Your task to perform on an android device: open app "LiveIn - Share Your Moment" Image 0: 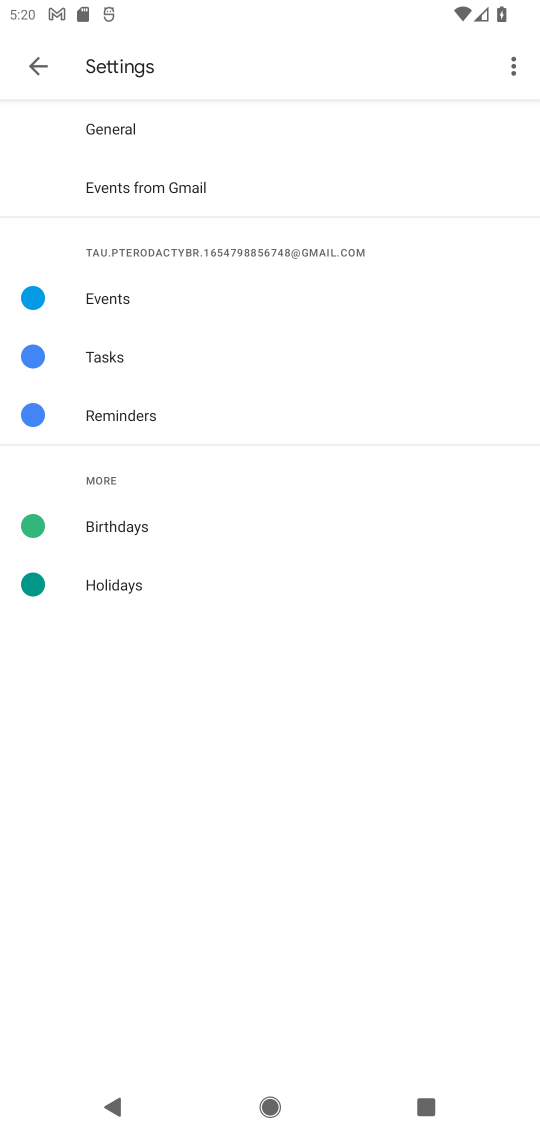
Step 0: press home button
Your task to perform on an android device: open app "LiveIn - Share Your Moment" Image 1: 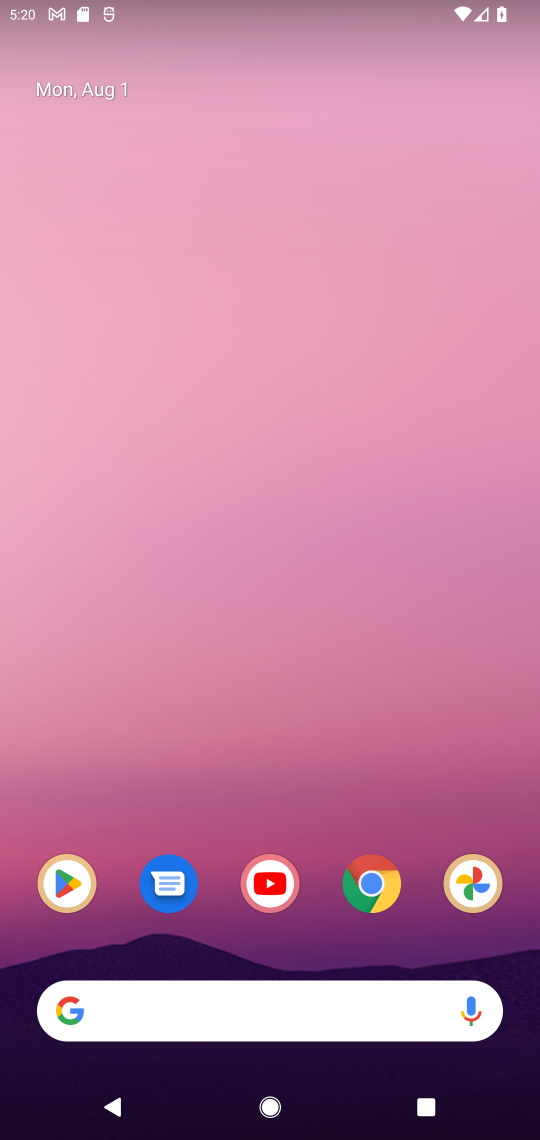
Step 1: drag from (255, 826) to (255, 30)
Your task to perform on an android device: open app "LiveIn - Share Your Moment" Image 2: 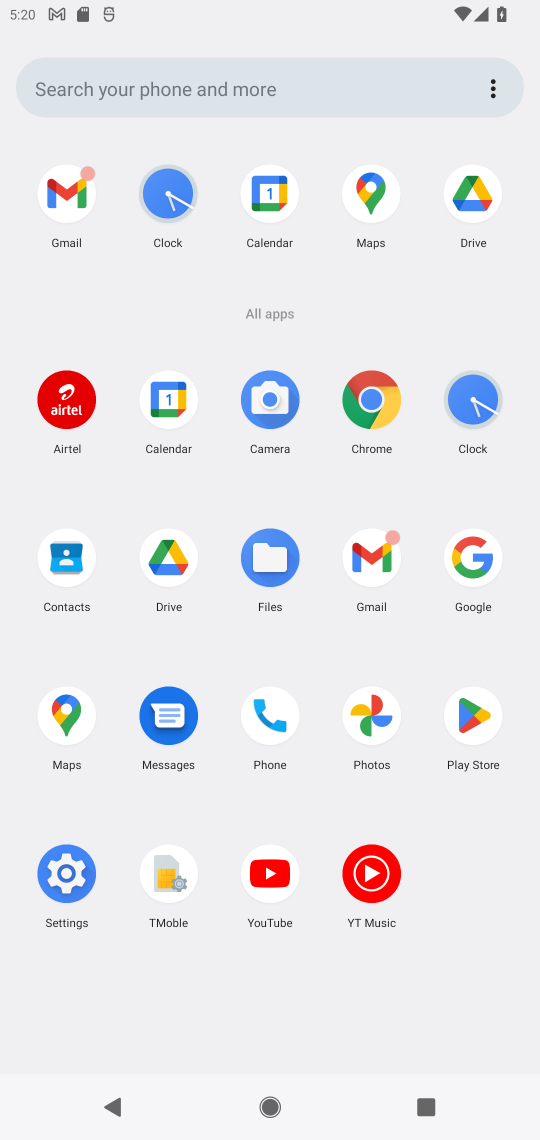
Step 2: click (467, 740)
Your task to perform on an android device: open app "LiveIn - Share Your Moment" Image 3: 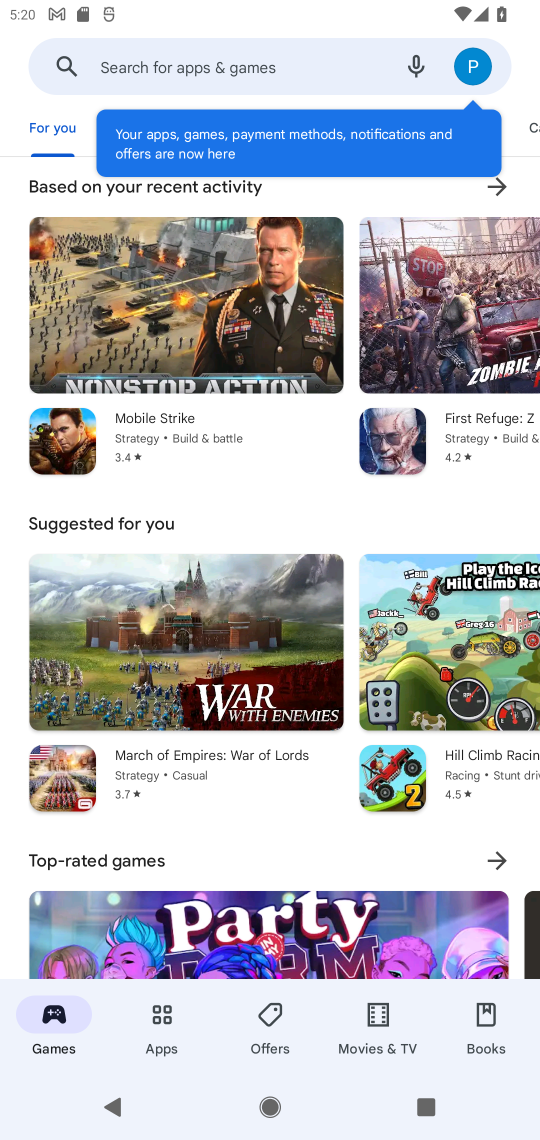
Step 3: click (253, 66)
Your task to perform on an android device: open app "LiveIn - Share Your Moment" Image 4: 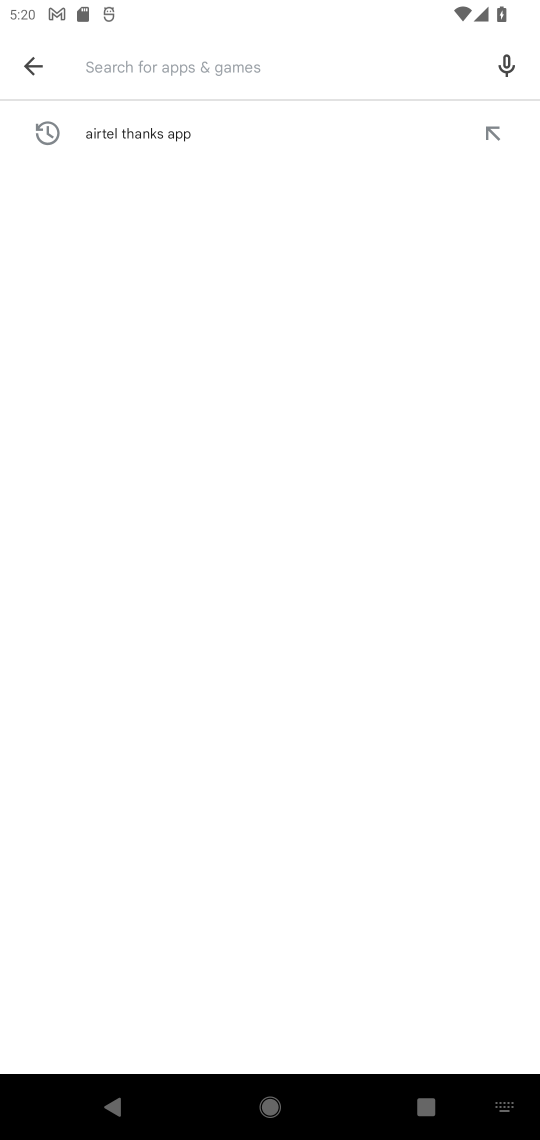
Step 4: type "LiveIn - Share Your Moment"
Your task to perform on an android device: open app "LiveIn - Share Your Moment" Image 5: 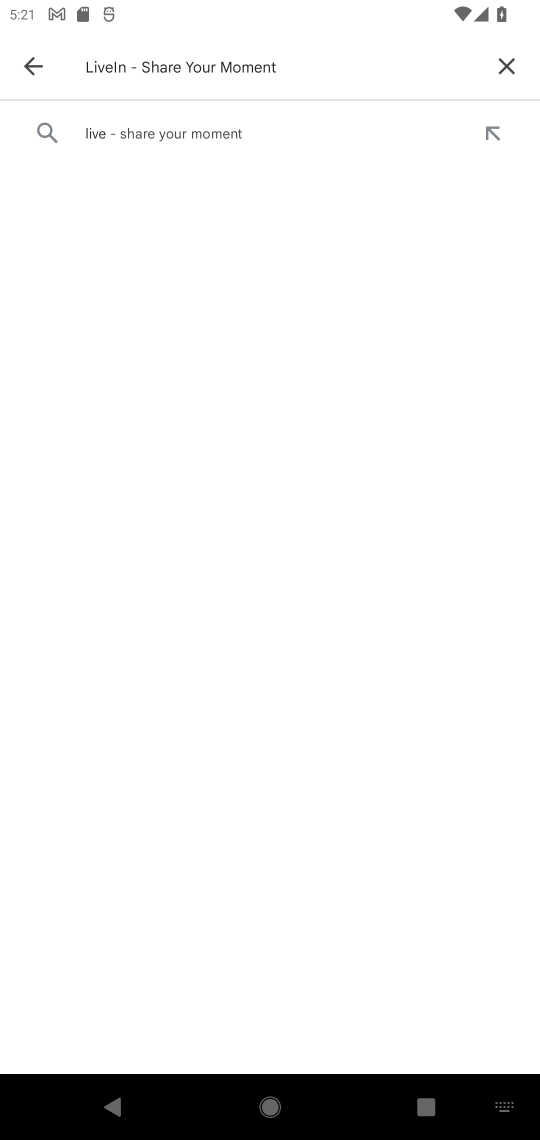
Step 5: click (178, 140)
Your task to perform on an android device: open app "LiveIn - Share Your Moment" Image 6: 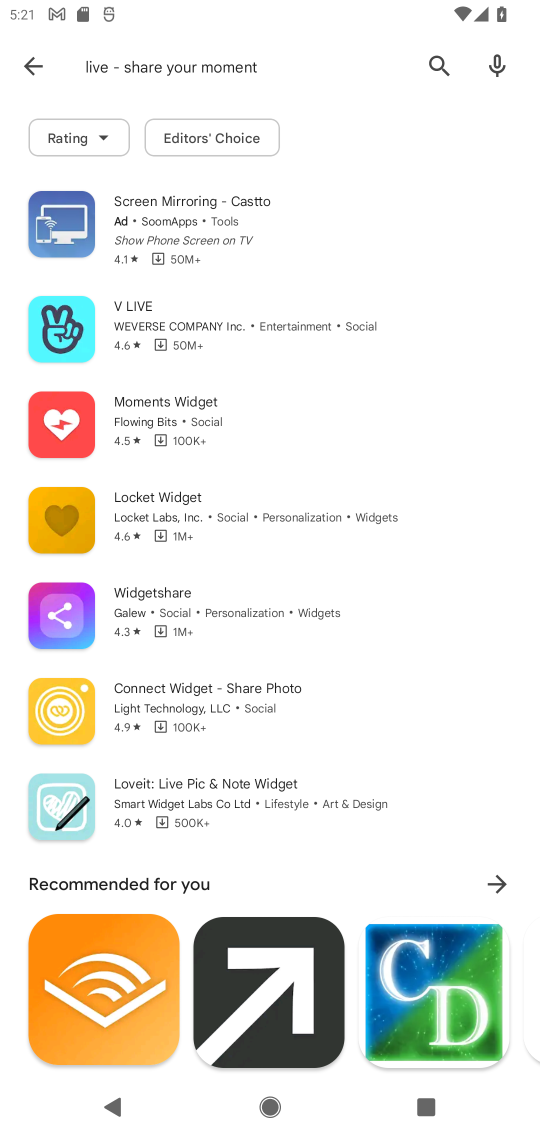
Step 6: task complete